Your task to perform on an android device: turn on data saver in the chrome app Image 0: 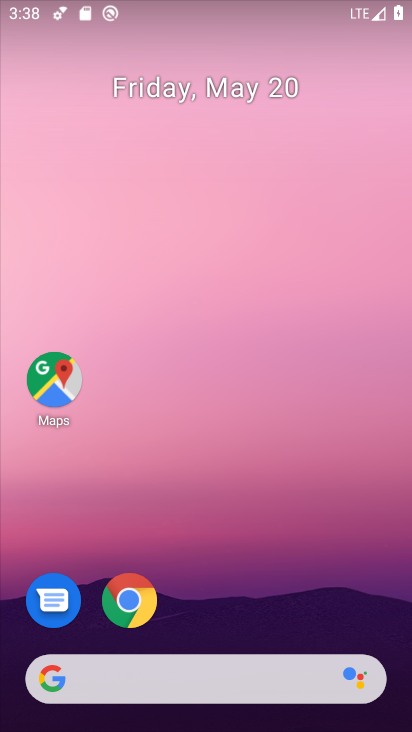
Step 0: drag from (353, 608) to (360, 228)
Your task to perform on an android device: turn on data saver in the chrome app Image 1: 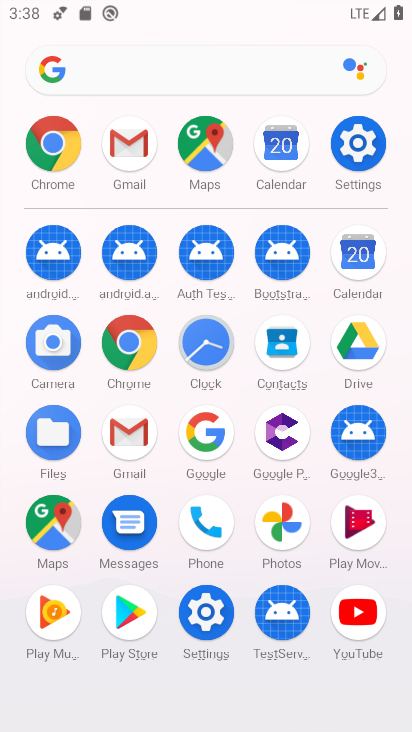
Step 1: click (155, 365)
Your task to perform on an android device: turn on data saver in the chrome app Image 2: 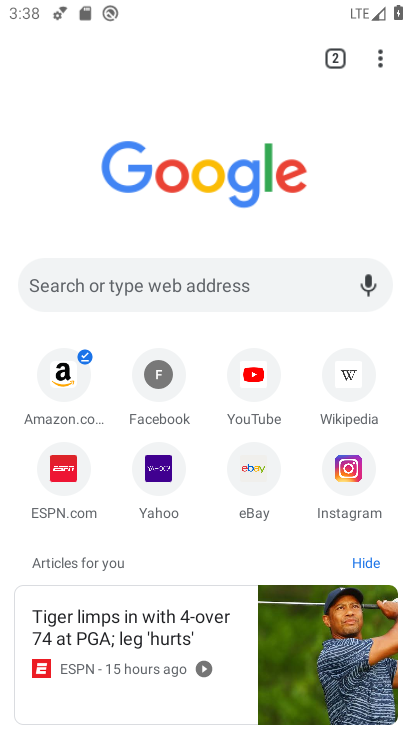
Step 2: click (383, 66)
Your task to perform on an android device: turn on data saver in the chrome app Image 3: 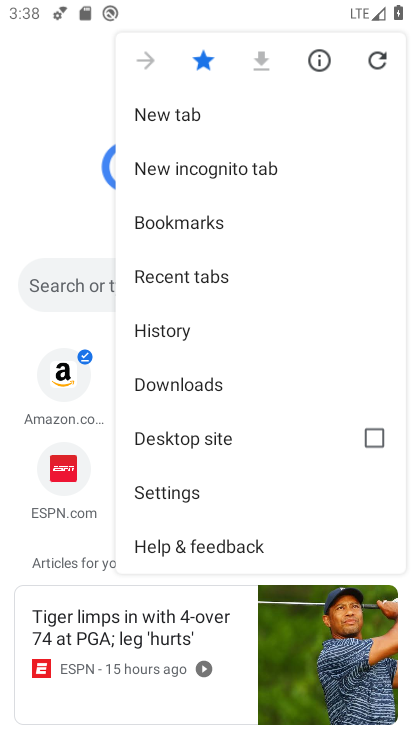
Step 3: drag from (305, 422) to (311, 331)
Your task to perform on an android device: turn on data saver in the chrome app Image 4: 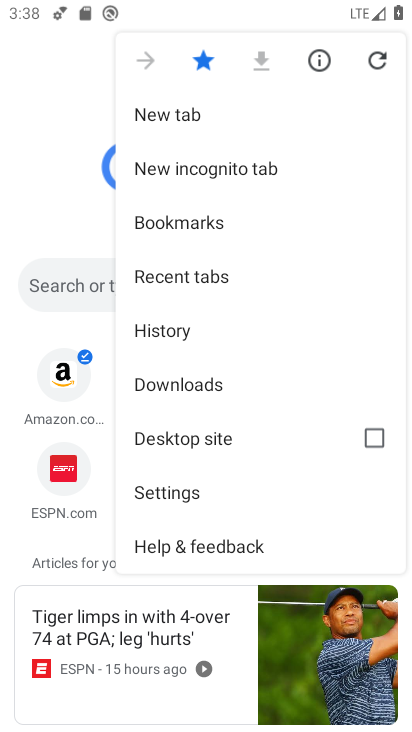
Step 4: click (201, 497)
Your task to perform on an android device: turn on data saver in the chrome app Image 5: 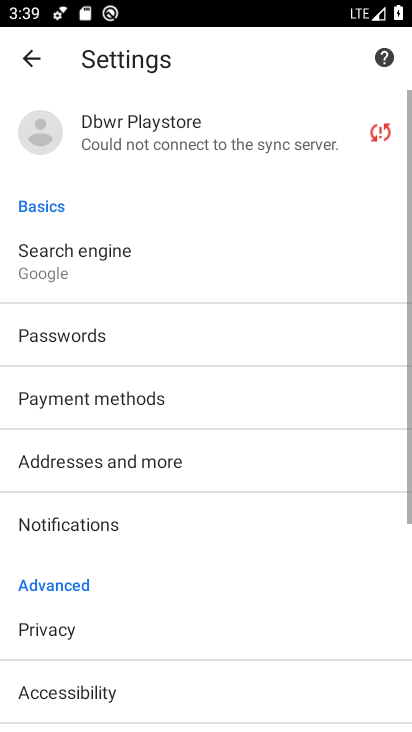
Step 5: drag from (243, 542) to (263, 445)
Your task to perform on an android device: turn on data saver in the chrome app Image 6: 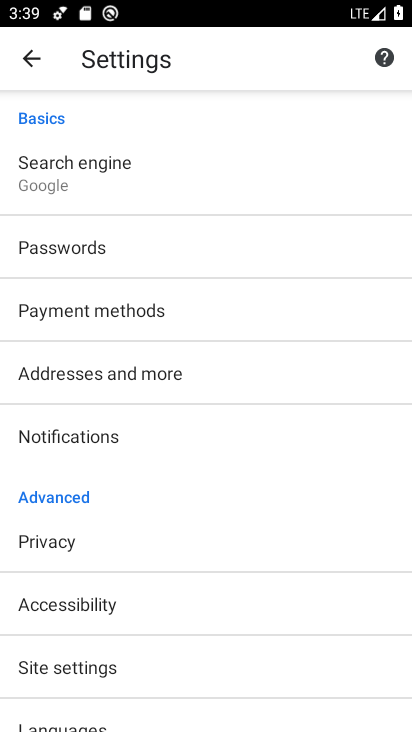
Step 6: drag from (266, 552) to (268, 489)
Your task to perform on an android device: turn on data saver in the chrome app Image 7: 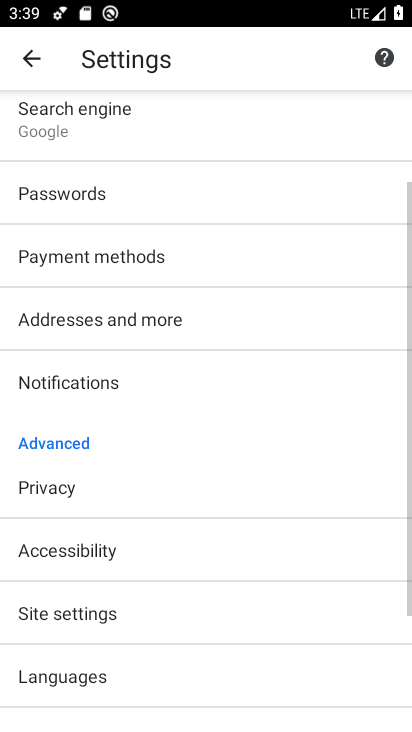
Step 7: drag from (276, 560) to (283, 491)
Your task to perform on an android device: turn on data saver in the chrome app Image 8: 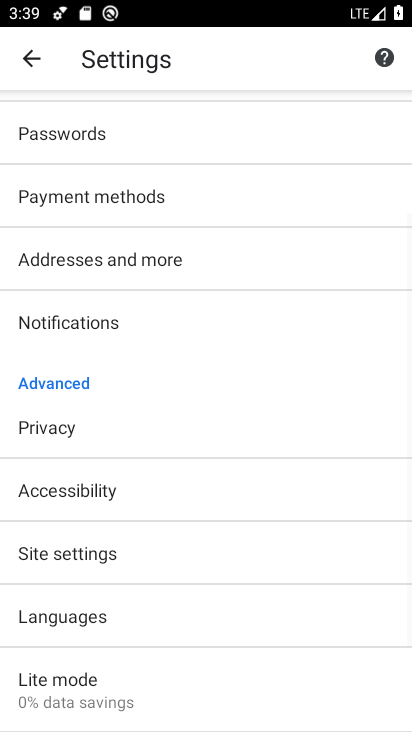
Step 8: drag from (278, 545) to (280, 431)
Your task to perform on an android device: turn on data saver in the chrome app Image 9: 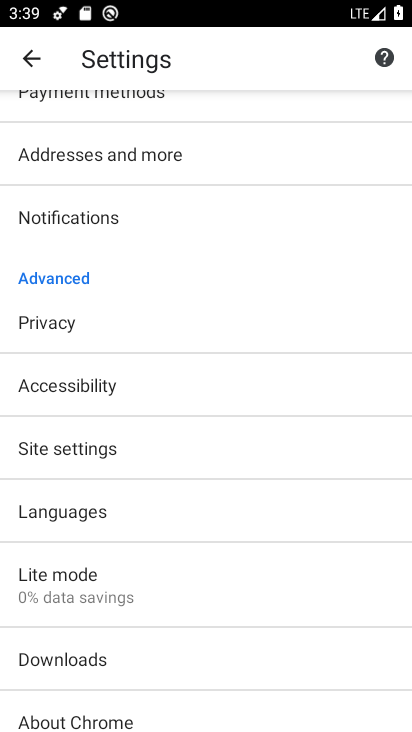
Step 9: drag from (270, 565) to (274, 452)
Your task to perform on an android device: turn on data saver in the chrome app Image 10: 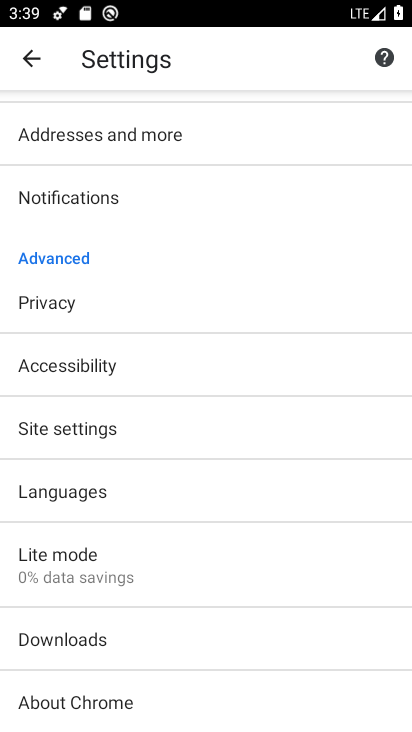
Step 10: drag from (276, 411) to (277, 471)
Your task to perform on an android device: turn on data saver in the chrome app Image 11: 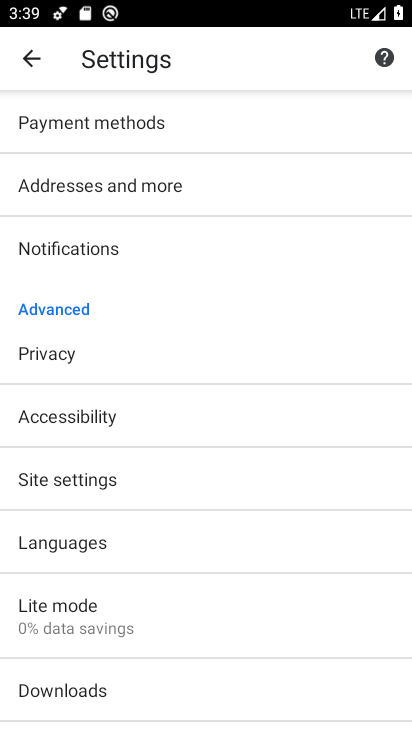
Step 11: drag from (281, 328) to (282, 397)
Your task to perform on an android device: turn on data saver in the chrome app Image 12: 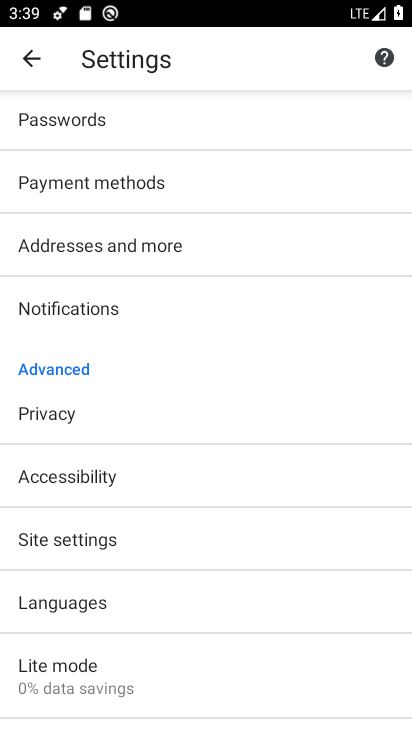
Step 12: drag from (283, 314) to (281, 390)
Your task to perform on an android device: turn on data saver in the chrome app Image 13: 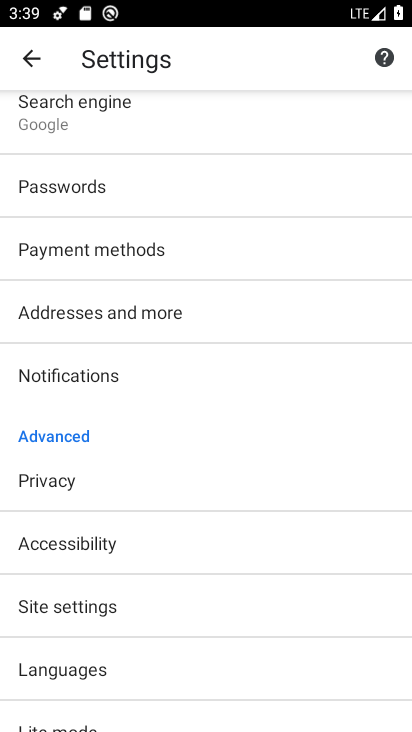
Step 13: drag from (278, 328) to (279, 402)
Your task to perform on an android device: turn on data saver in the chrome app Image 14: 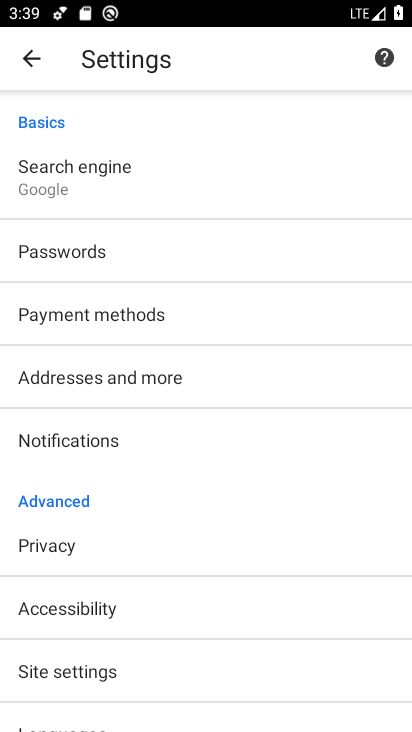
Step 14: drag from (281, 297) to (279, 390)
Your task to perform on an android device: turn on data saver in the chrome app Image 15: 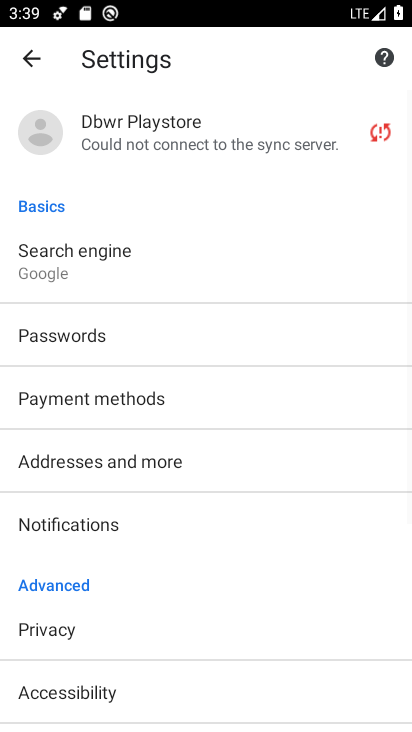
Step 15: drag from (279, 276) to (279, 372)
Your task to perform on an android device: turn on data saver in the chrome app Image 16: 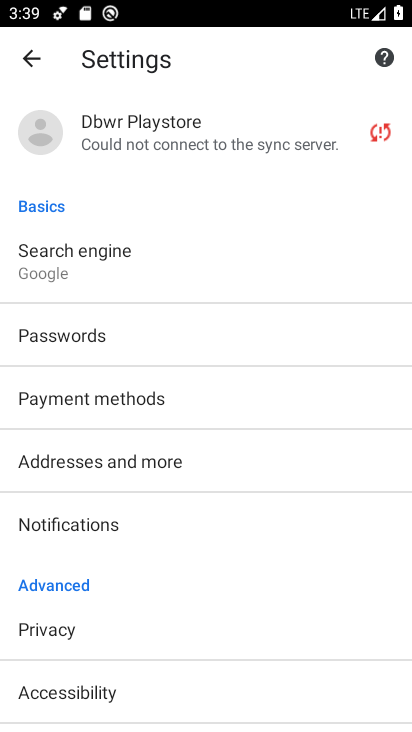
Step 16: drag from (266, 469) to (269, 392)
Your task to perform on an android device: turn on data saver in the chrome app Image 17: 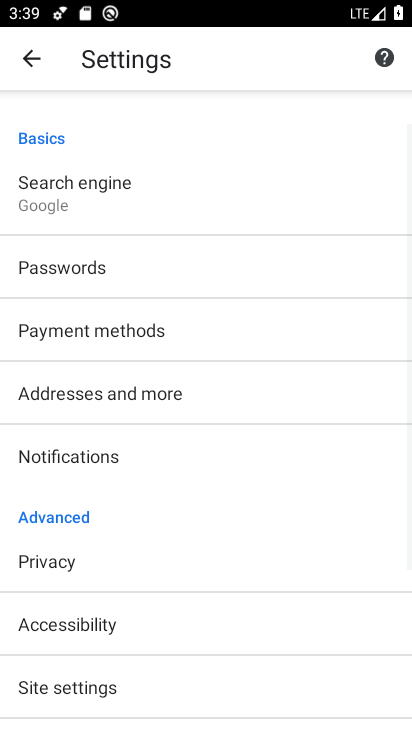
Step 17: drag from (275, 501) to (278, 427)
Your task to perform on an android device: turn on data saver in the chrome app Image 18: 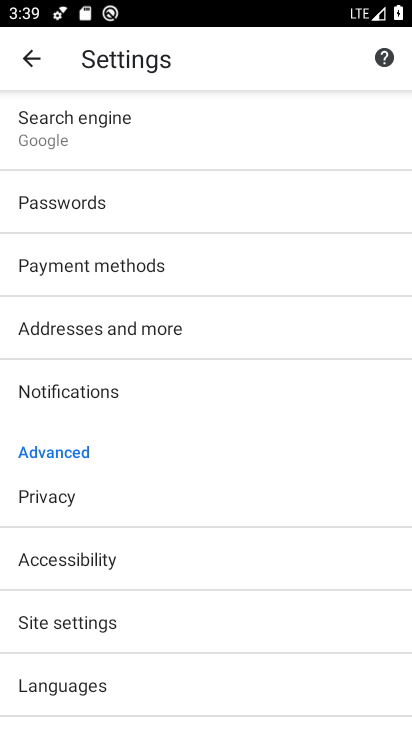
Step 18: drag from (281, 496) to (285, 433)
Your task to perform on an android device: turn on data saver in the chrome app Image 19: 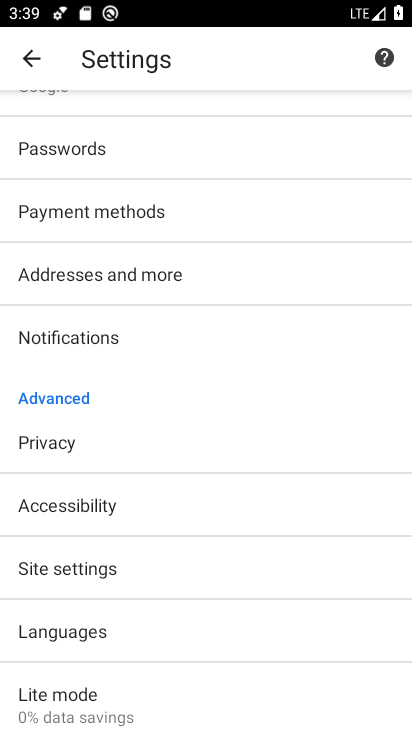
Step 19: drag from (276, 501) to (275, 441)
Your task to perform on an android device: turn on data saver in the chrome app Image 20: 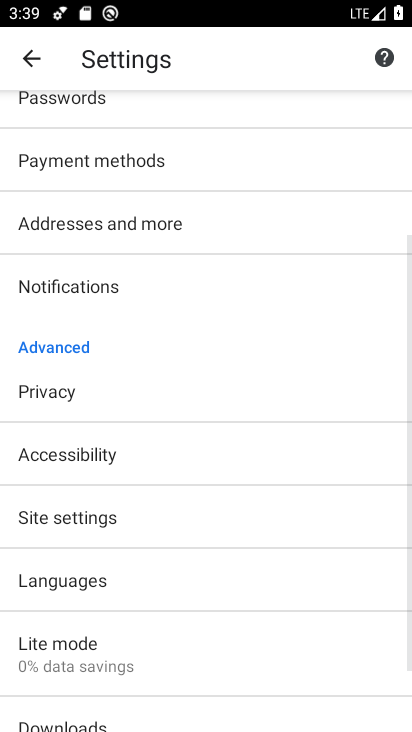
Step 20: drag from (272, 507) to (275, 430)
Your task to perform on an android device: turn on data saver in the chrome app Image 21: 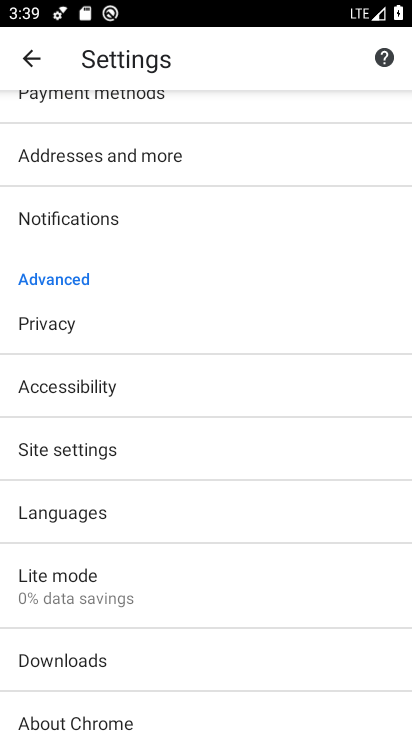
Step 21: drag from (249, 506) to (260, 360)
Your task to perform on an android device: turn on data saver in the chrome app Image 22: 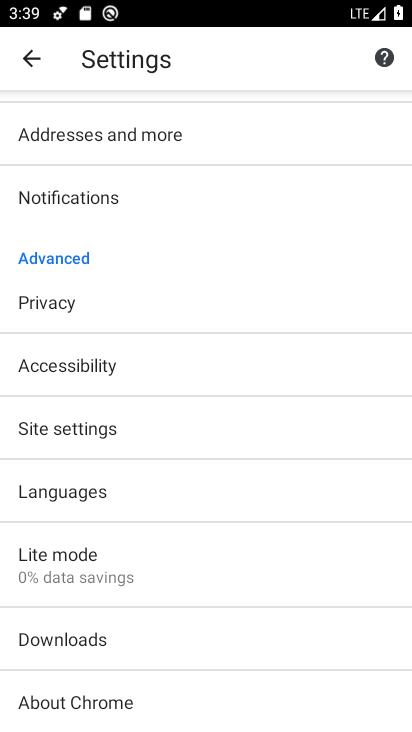
Step 22: click (221, 548)
Your task to perform on an android device: turn on data saver in the chrome app Image 23: 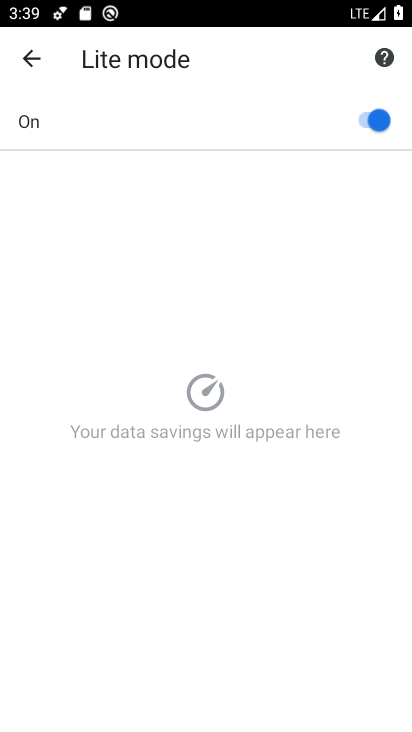
Step 23: task complete